Your task to perform on an android device: View the shopping cart on bestbuy. Search for usb-c to usb-a on bestbuy, select the first entry, add it to the cart, then select checkout. Image 0: 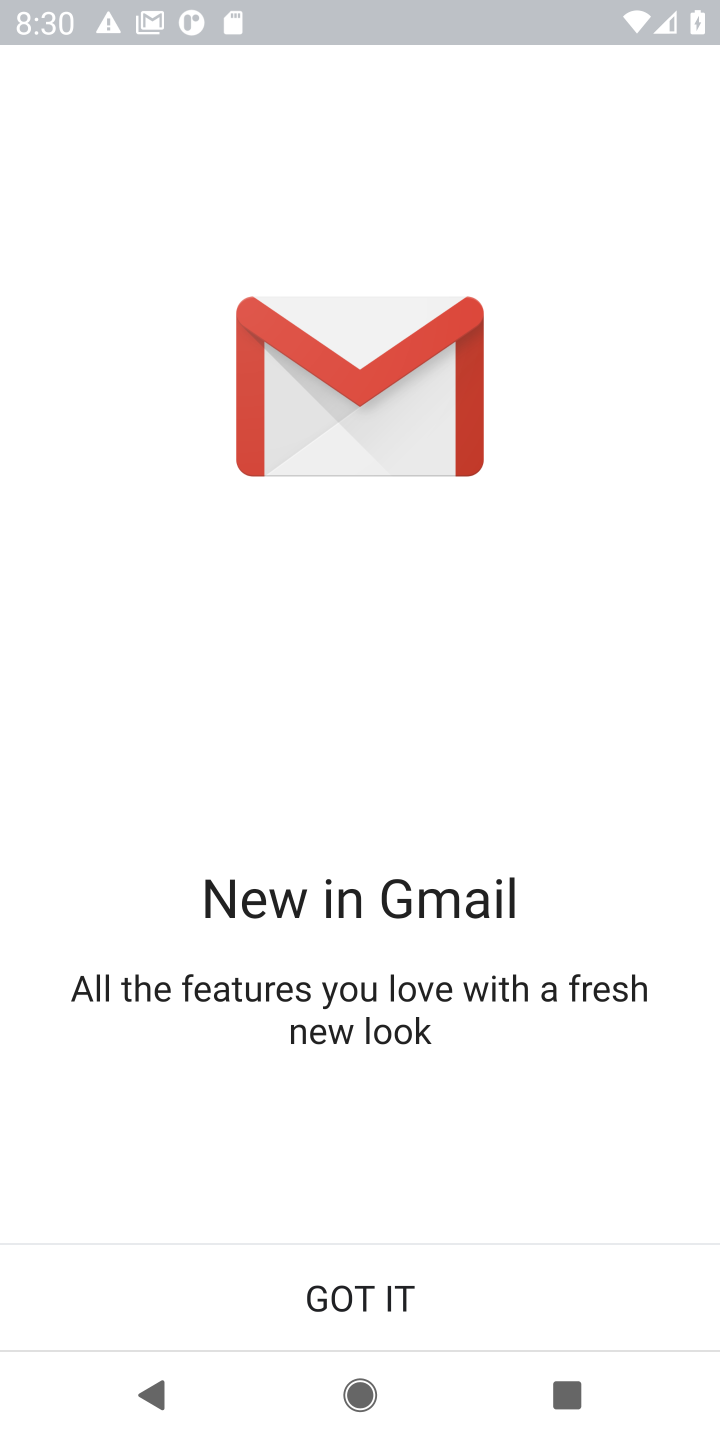
Step 0: press home button
Your task to perform on an android device: View the shopping cart on bestbuy. Search for usb-c to usb-a on bestbuy, select the first entry, add it to the cart, then select checkout. Image 1: 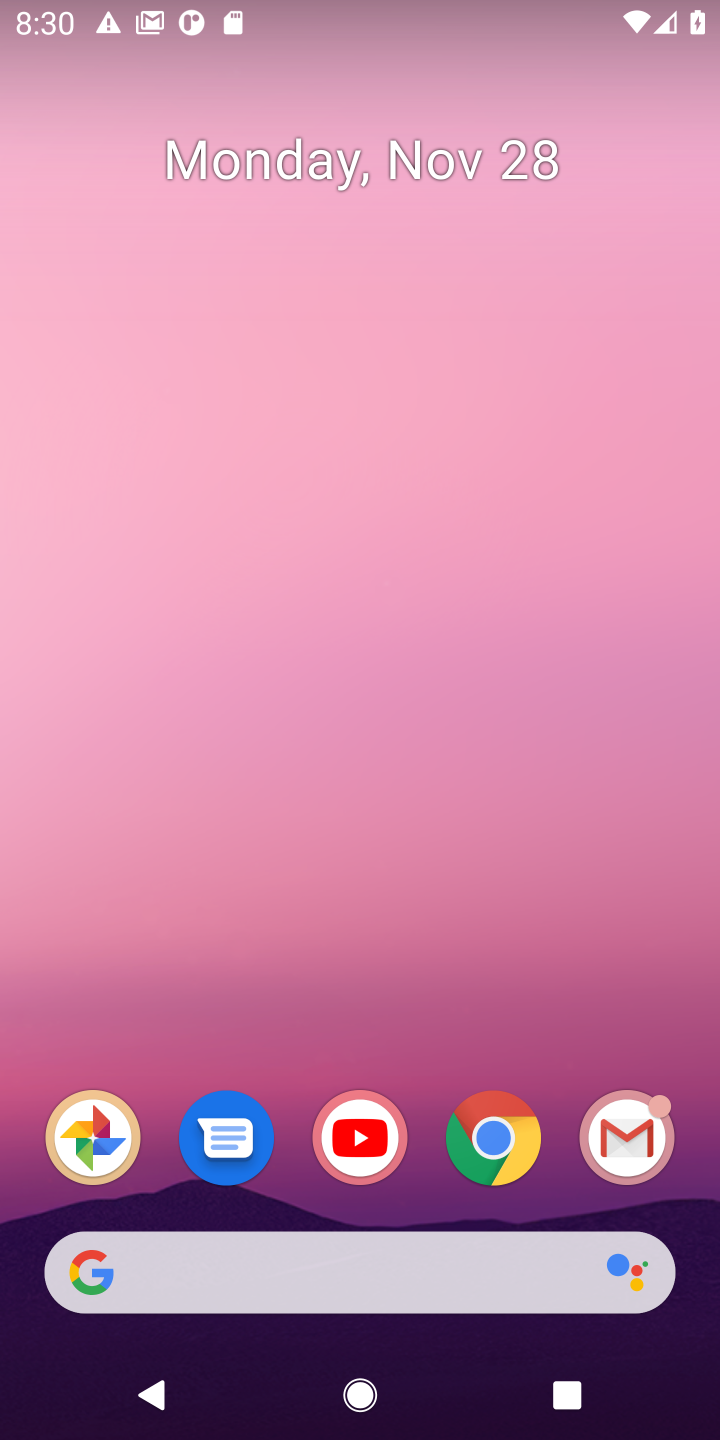
Step 1: click (493, 1147)
Your task to perform on an android device: View the shopping cart on bestbuy. Search for usb-c to usb-a on bestbuy, select the first entry, add it to the cart, then select checkout. Image 2: 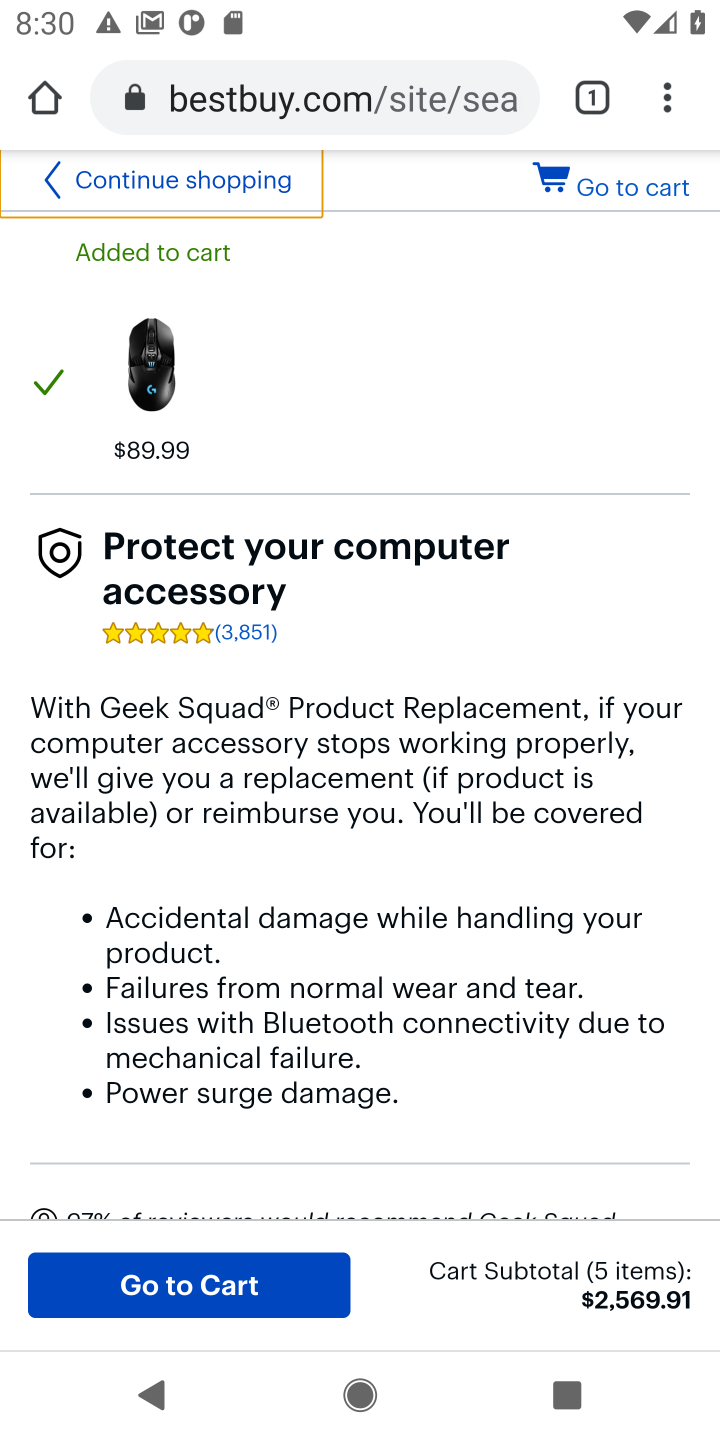
Step 2: click (617, 195)
Your task to perform on an android device: View the shopping cart on bestbuy. Search for usb-c to usb-a on bestbuy, select the first entry, add it to the cart, then select checkout. Image 3: 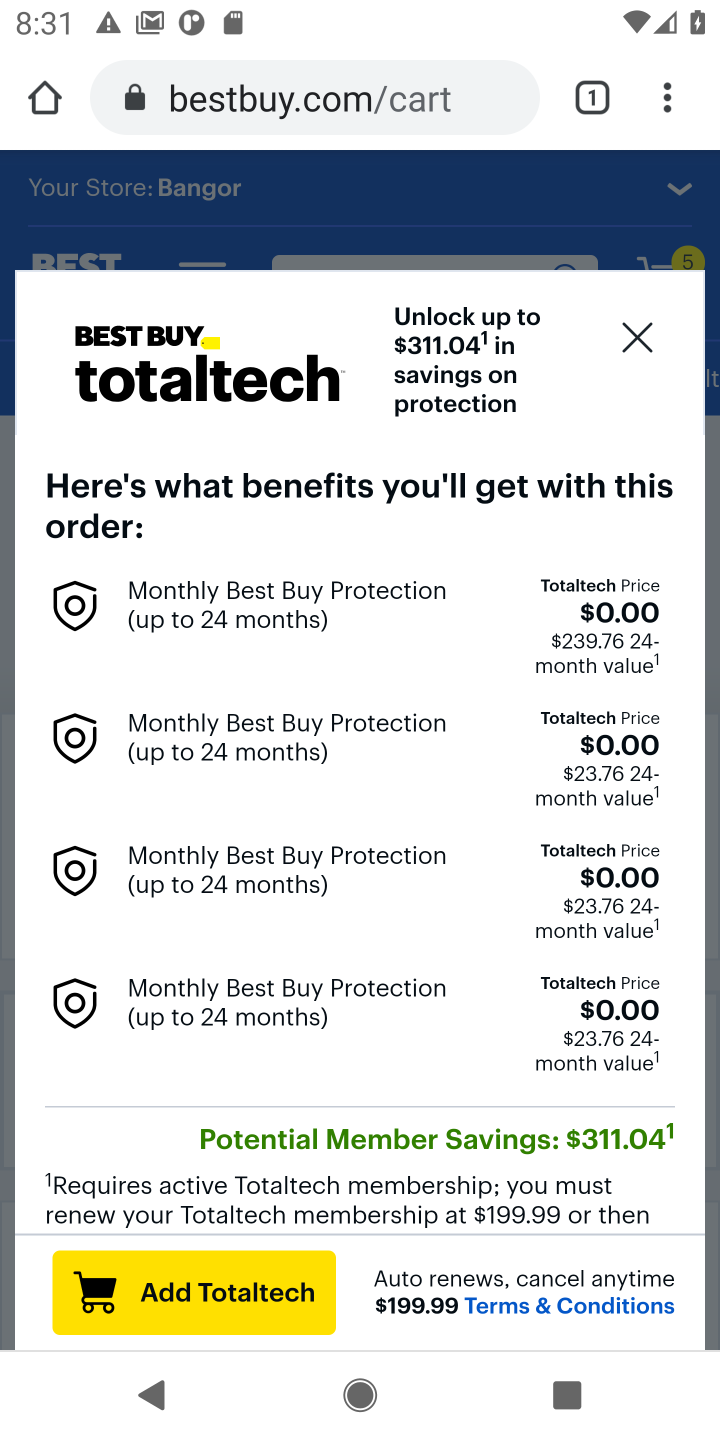
Step 3: click (637, 352)
Your task to perform on an android device: View the shopping cart on bestbuy. Search for usb-c to usb-a on bestbuy, select the first entry, add it to the cart, then select checkout. Image 4: 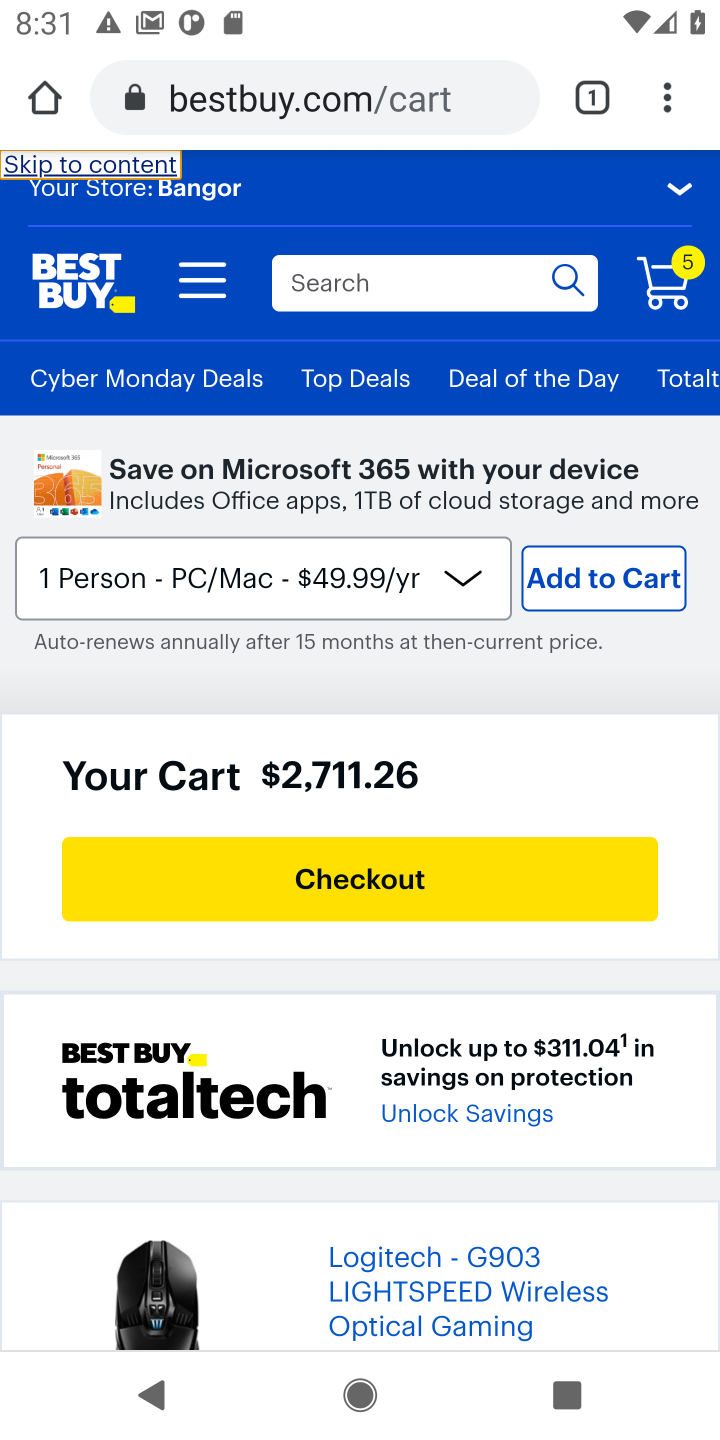
Step 4: click (312, 288)
Your task to perform on an android device: View the shopping cart on bestbuy. Search for usb-c to usb-a on bestbuy, select the first entry, add it to the cart, then select checkout. Image 5: 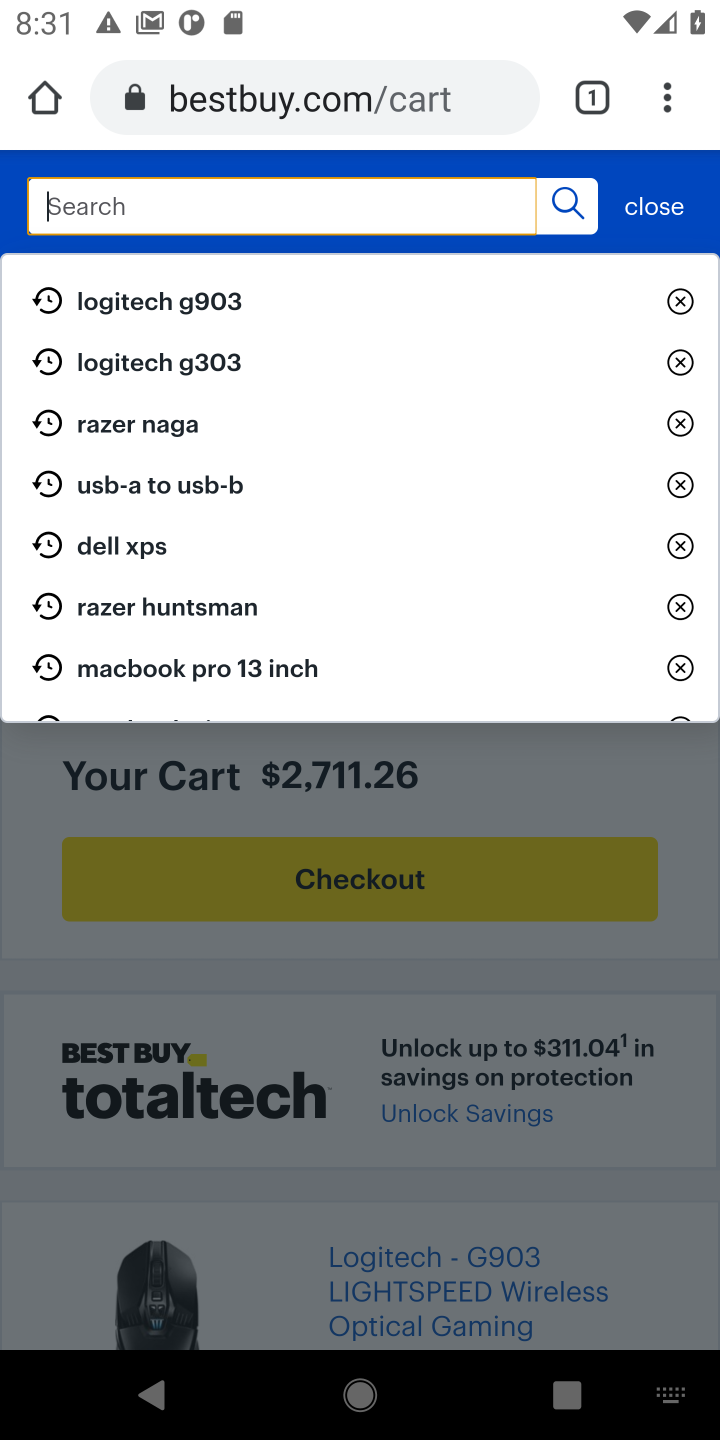
Step 5: type " usb-c to usb-a "
Your task to perform on an android device: View the shopping cart on bestbuy. Search for usb-c to usb-a on bestbuy, select the first entry, add it to the cart, then select checkout. Image 6: 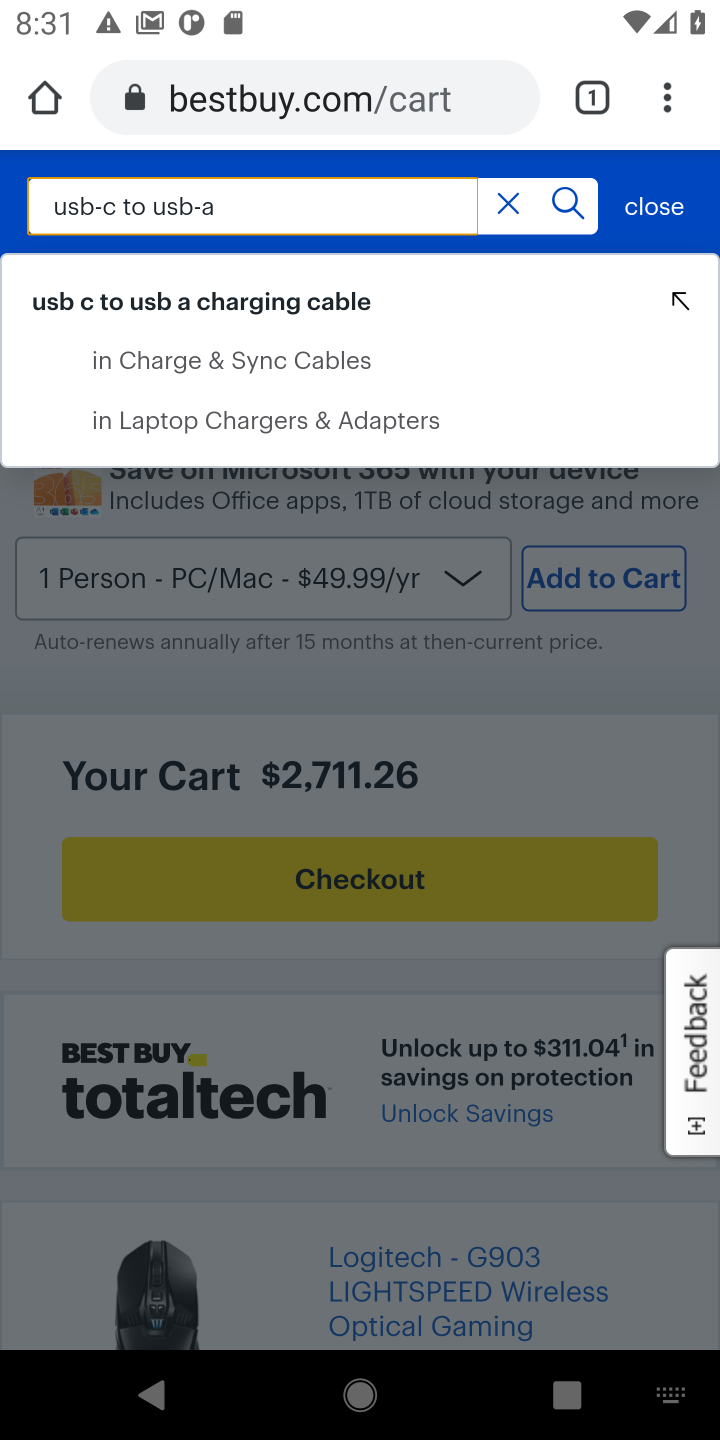
Step 6: click (238, 301)
Your task to perform on an android device: View the shopping cart on bestbuy. Search for usb-c to usb-a on bestbuy, select the first entry, add it to the cart, then select checkout. Image 7: 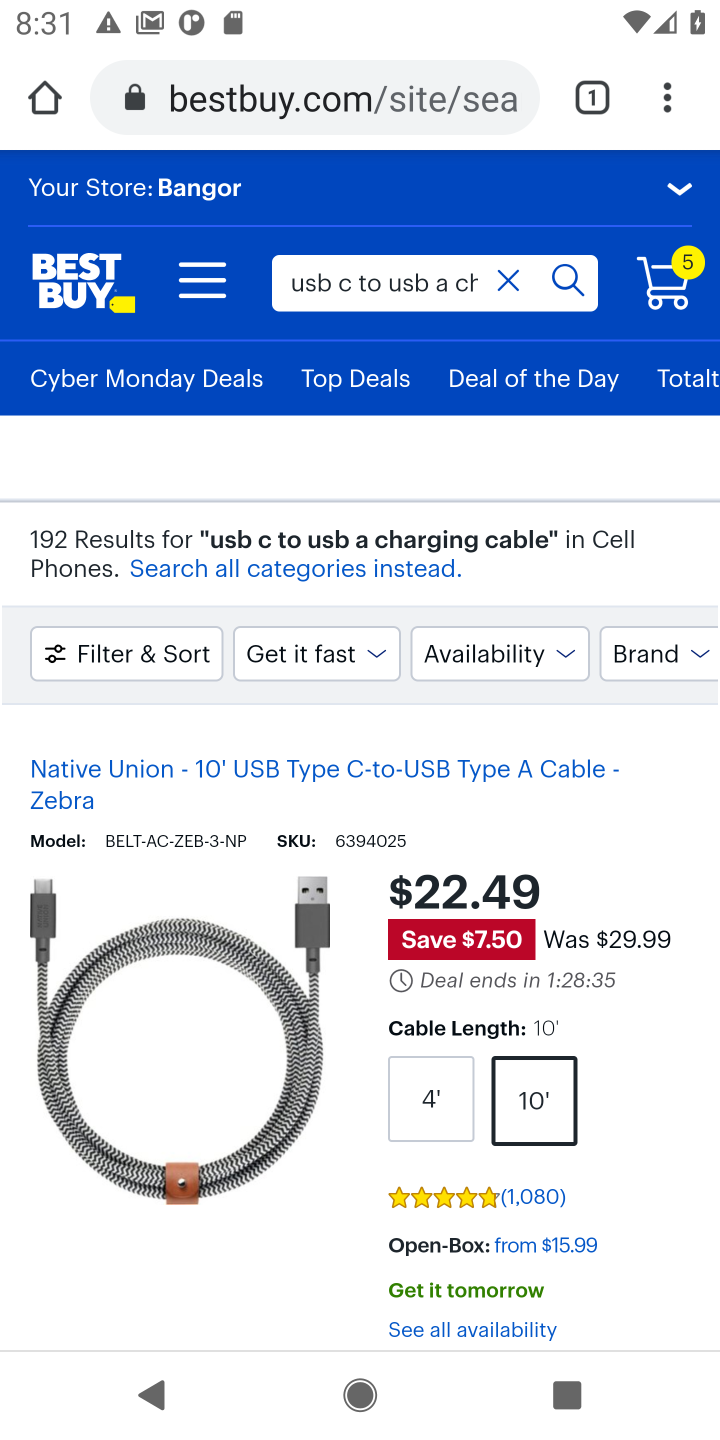
Step 7: drag from (239, 979) to (300, 575)
Your task to perform on an android device: View the shopping cart on bestbuy. Search for usb-c to usb-a on bestbuy, select the first entry, add it to the cart, then select checkout. Image 8: 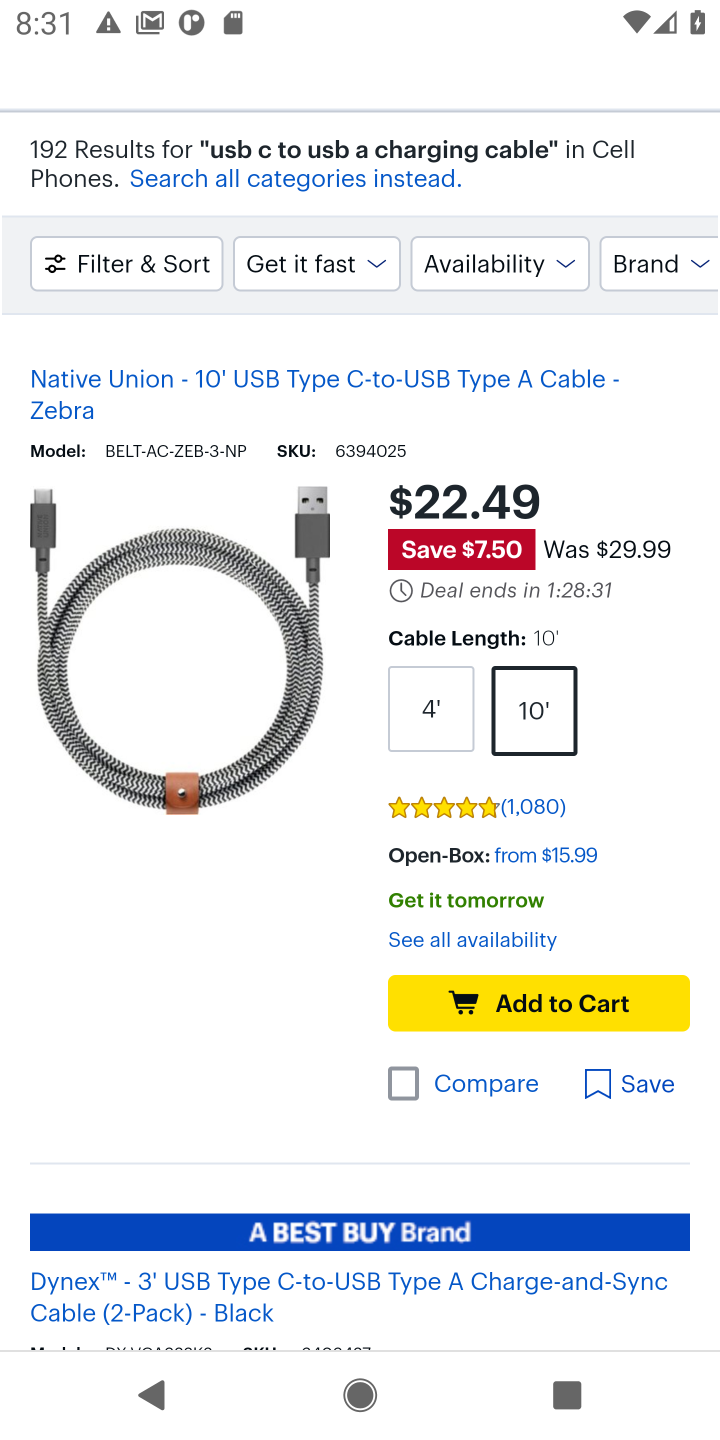
Step 8: click (513, 998)
Your task to perform on an android device: View the shopping cart on bestbuy. Search for usb-c to usb-a on bestbuy, select the first entry, add it to the cart, then select checkout. Image 9: 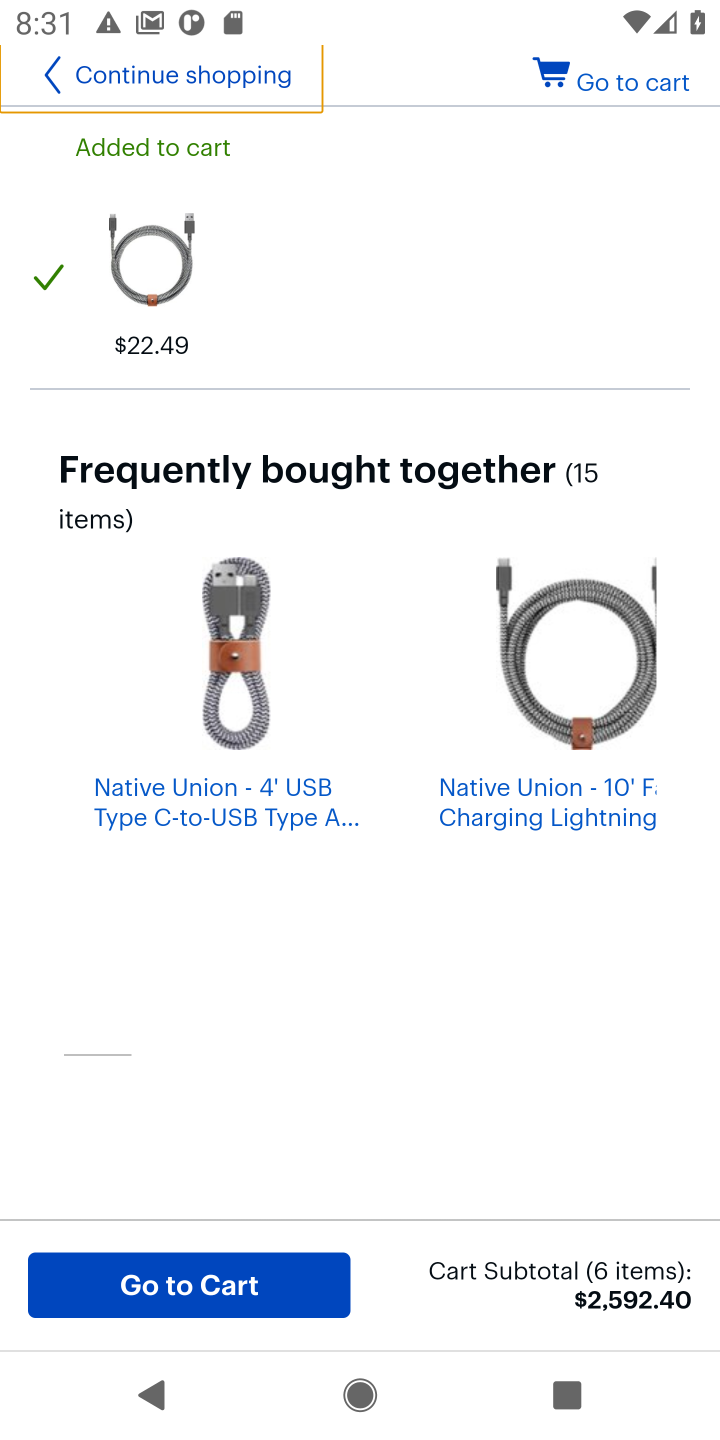
Step 9: click (616, 96)
Your task to perform on an android device: View the shopping cart on bestbuy. Search for usb-c to usb-a on bestbuy, select the first entry, add it to the cart, then select checkout. Image 10: 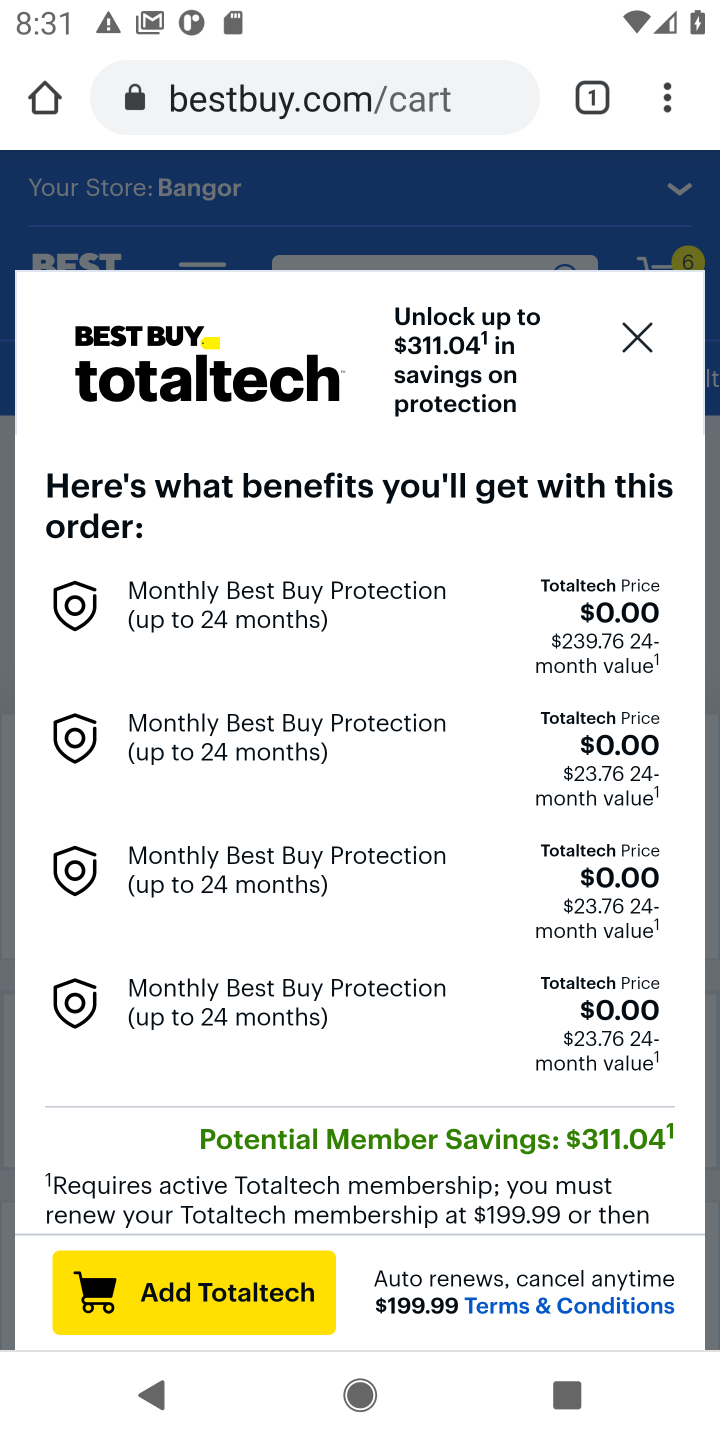
Step 10: click (637, 349)
Your task to perform on an android device: View the shopping cart on bestbuy. Search for usb-c to usb-a on bestbuy, select the first entry, add it to the cart, then select checkout. Image 11: 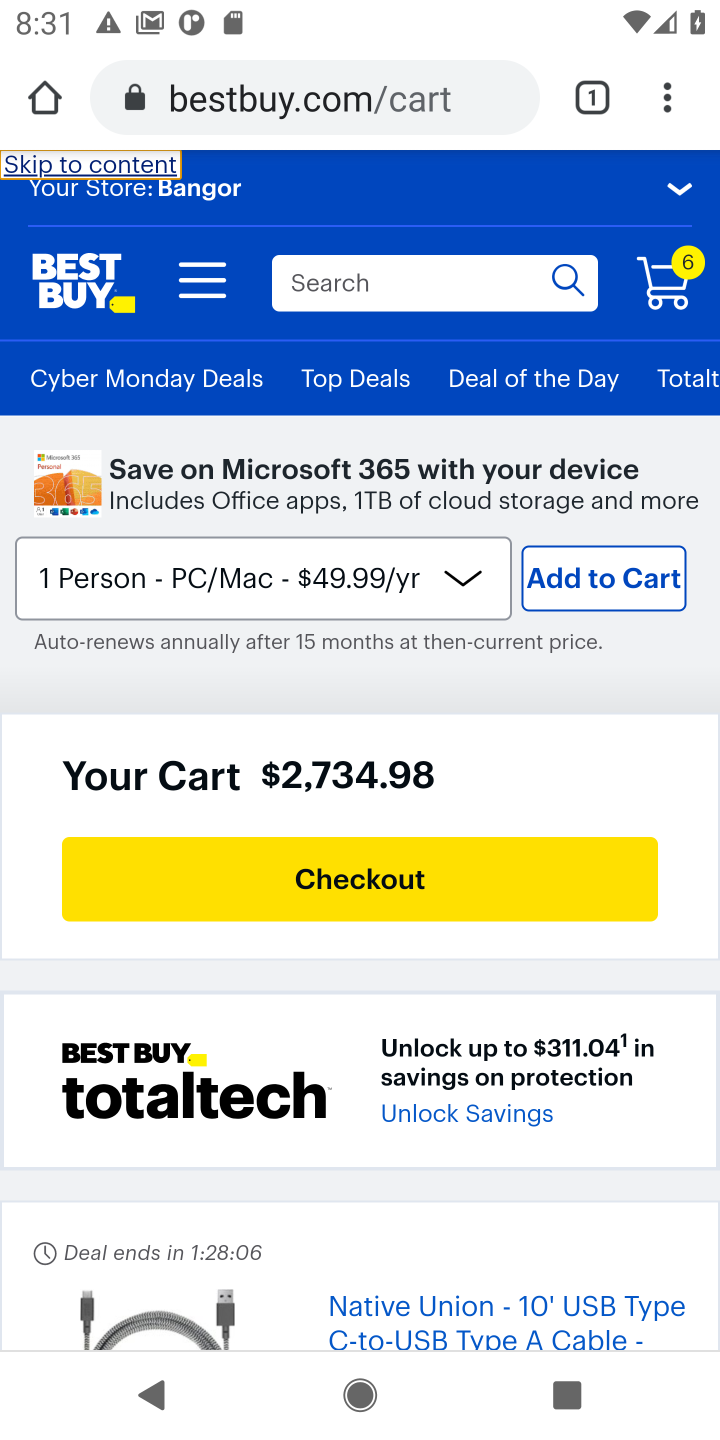
Step 11: click (322, 881)
Your task to perform on an android device: View the shopping cart on bestbuy. Search for usb-c to usb-a on bestbuy, select the first entry, add it to the cart, then select checkout. Image 12: 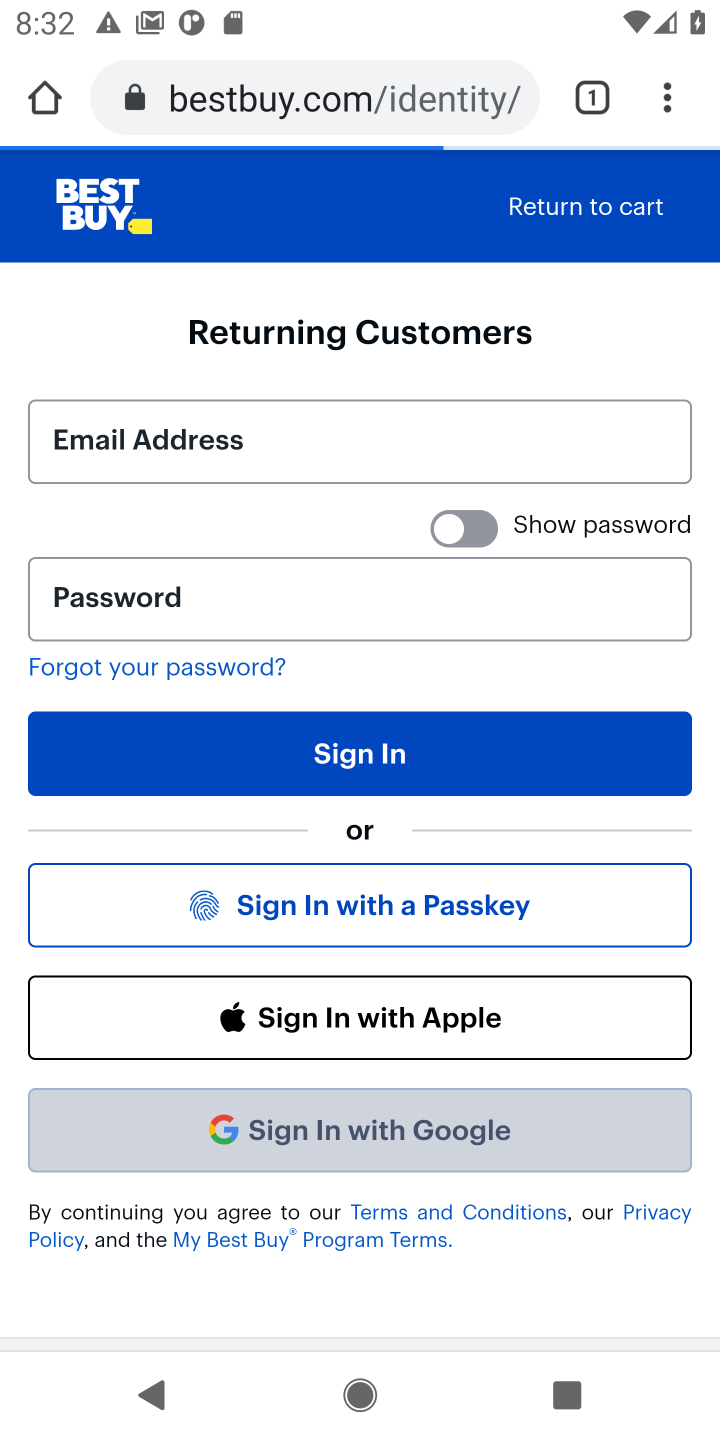
Step 12: task complete